Your task to perform on an android device: Open Youtube and go to "Your channel" Image 0: 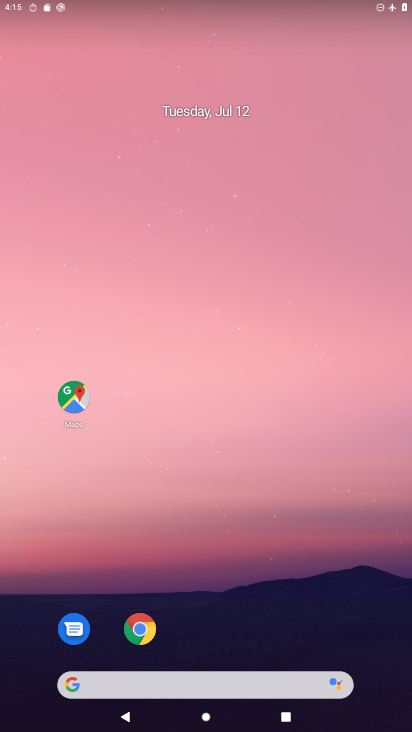
Step 0: press home button
Your task to perform on an android device: Open Youtube and go to "Your channel" Image 1: 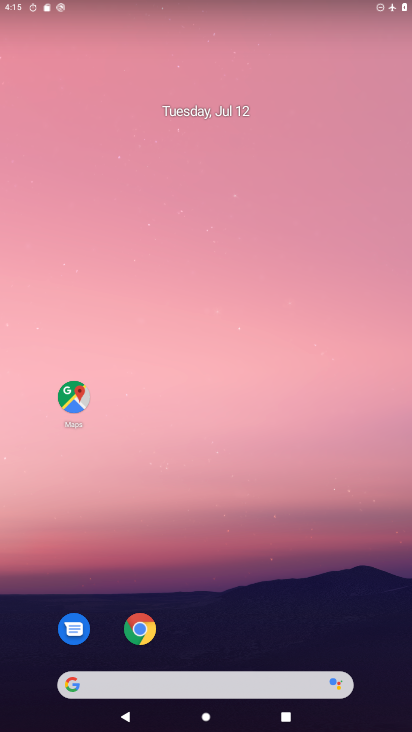
Step 1: drag from (294, 624) to (244, 8)
Your task to perform on an android device: Open Youtube and go to "Your channel" Image 2: 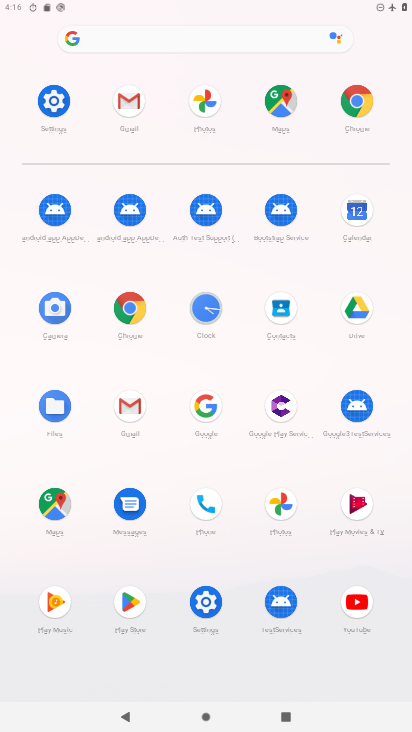
Step 2: click (350, 622)
Your task to perform on an android device: Open Youtube and go to "Your channel" Image 3: 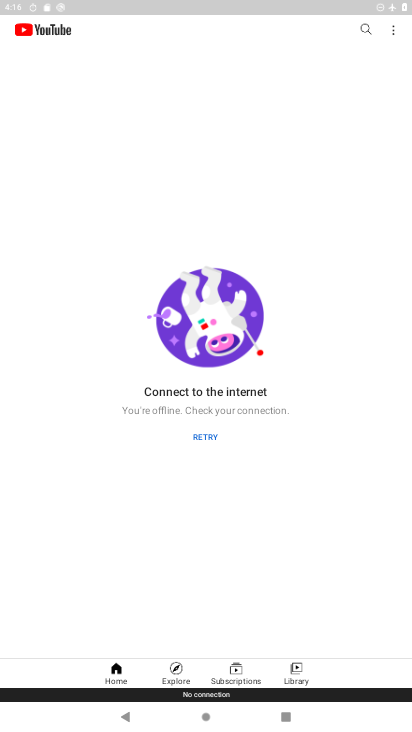
Step 3: drag from (372, 0) to (291, 498)
Your task to perform on an android device: Open Youtube and go to "Your channel" Image 4: 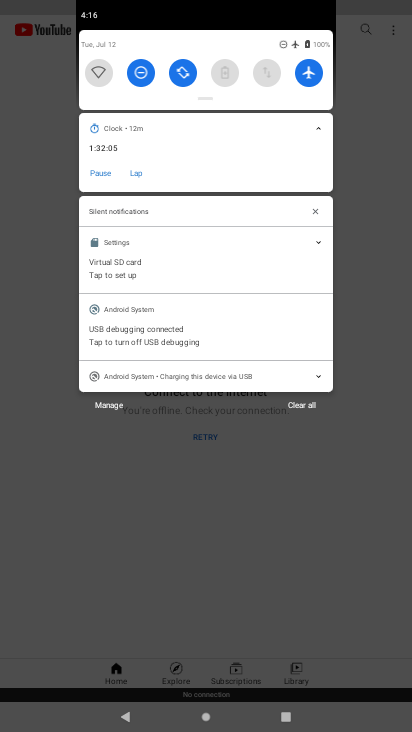
Step 4: click (304, 60)
Your task to perform on an android device: Open Youtube and go to "Your channel" Image 5: 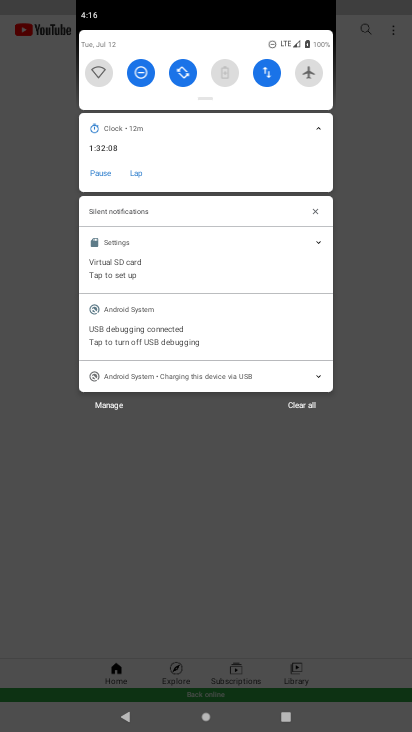
Step 5: click (15, 184)
Your task to perform on an android device: Open Youtube and go to "Your channel" Image 6: 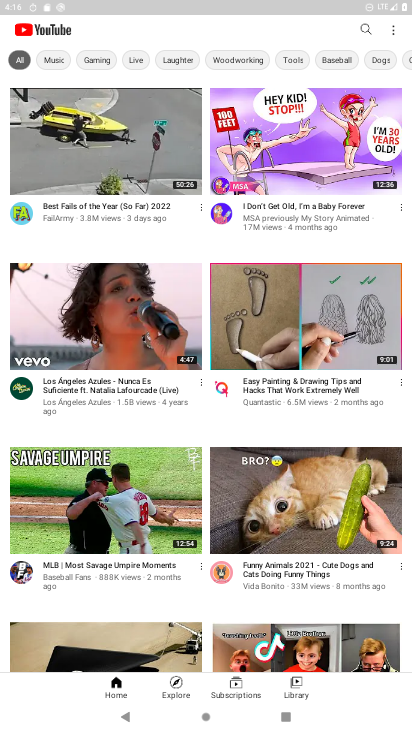
Step 6: drag from (397, 32) to (327, 24)
Your task to perform on an android device: Open Youtube and go to "Your channel" Image 7: 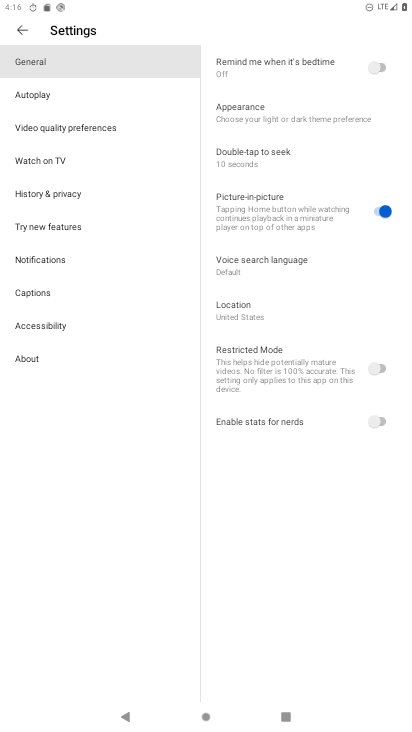
Step 7: click (31, 368)
Your task to perform on an android device: Open Youtube and go to "Your channel" Image 8: 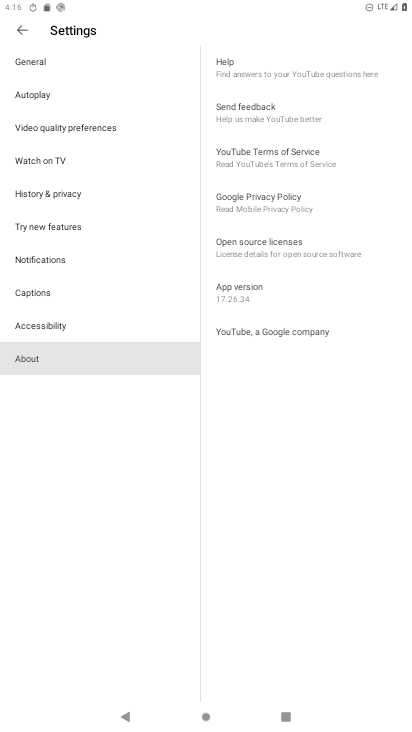
Step 8: click (26, 27)
Your task to perform on an android device: Open Youtube and go to "Your channel" Image 9: 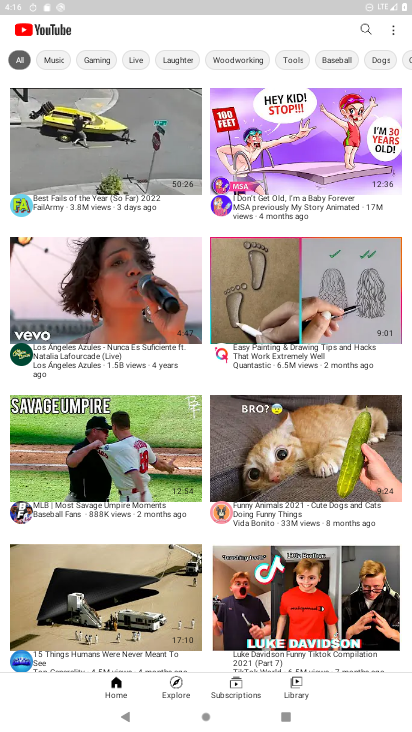
Step 9: drag from (26, 32) to (15, 87)
Your task to perform on an android device: Open Youtube and go to "Your channel" Image 10: 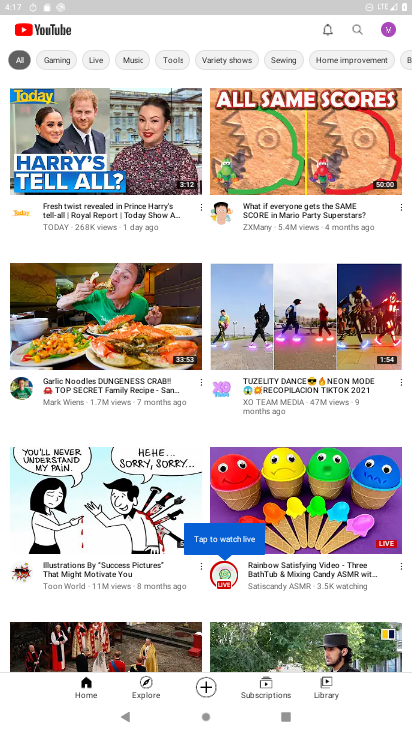
Step 10: click (316, 683)
Your task to perform on an android device: Open Youtube and go to "Your channel" Image 11: 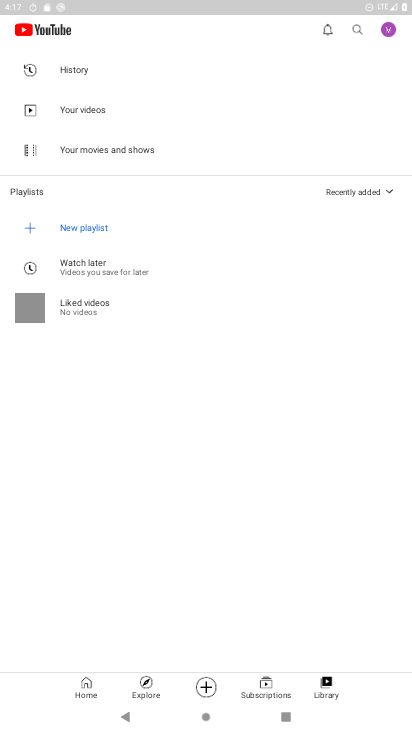
Step 11: click (387, 34)
Your task to perform on an android device: Open Youtube and go to "Your channel" Image 12: 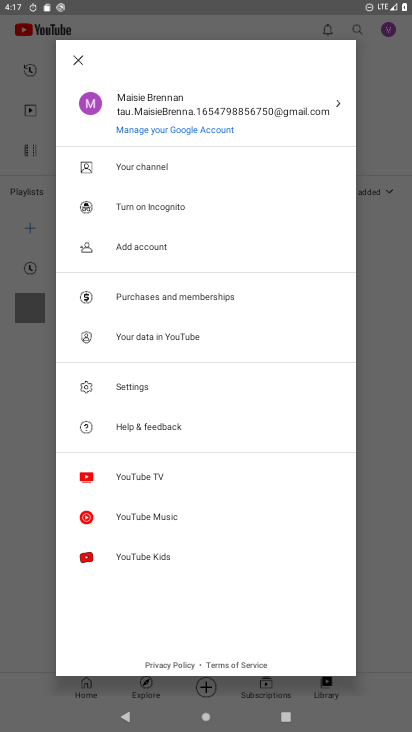
Step 12: click (130, 167)
Your task to perform on an android device: Open Youtube and go to "Your channel" Image 13: 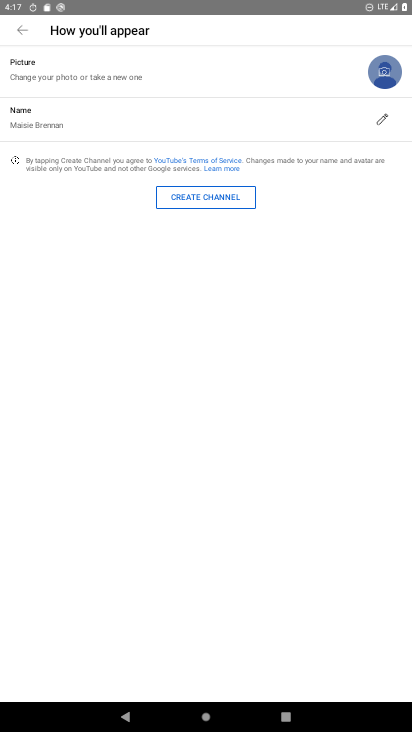
Step 13: task complete